Your task to perform on an android device: read, delete, or share a saved page in the chrome app Image 0: 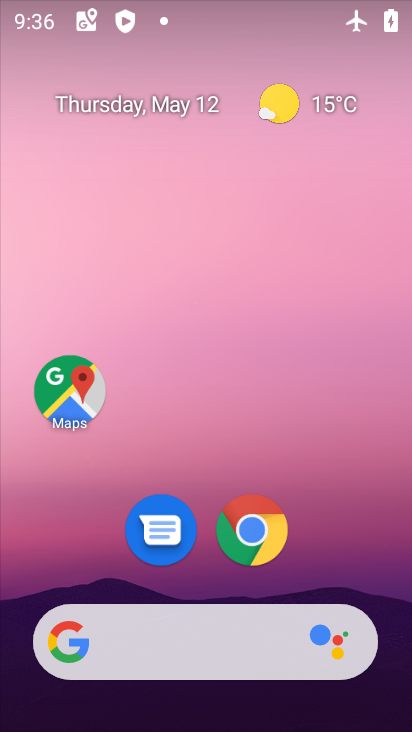
Step 0: click (265, 528)
Your task to perform on an android device: read, delete, or share a saved page in the chrome app Image 1: 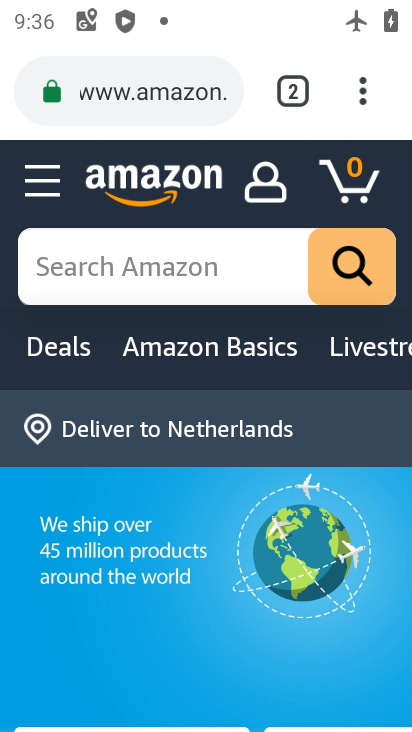
Step 1: click (362, 100)
Your task to perform on an android device: read, delete, or share a saved page in the chrome app Image 2: 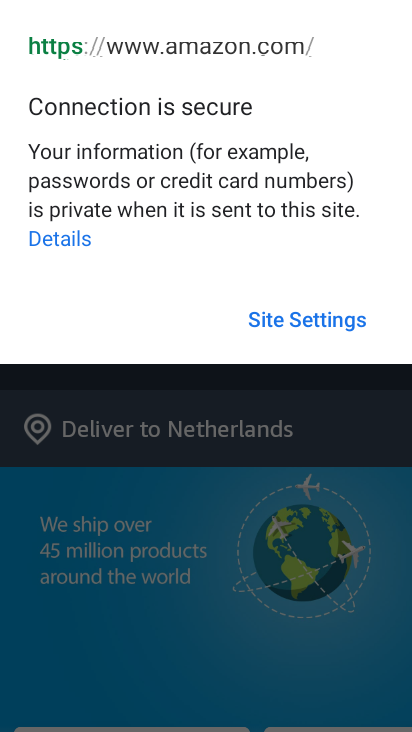
Step 2: click (179, 502)
Your task to perform on an android device: read, delete, or share a saved page in the chrome app Image 3: 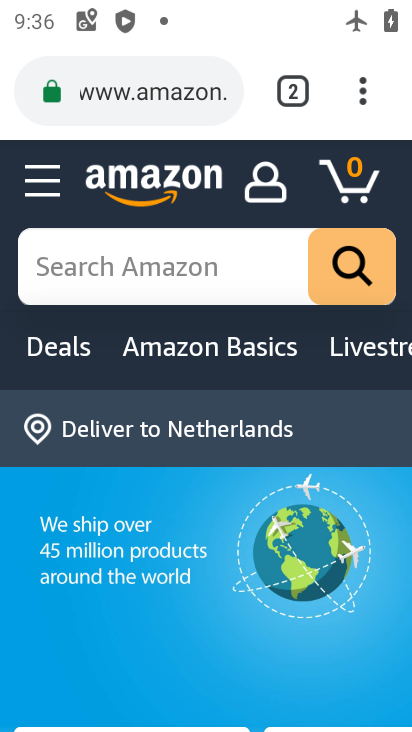
Step 3: click (369, 87)
Your task to perform on an android device: read, delete, or share a saved page in the chrome app Image 4: 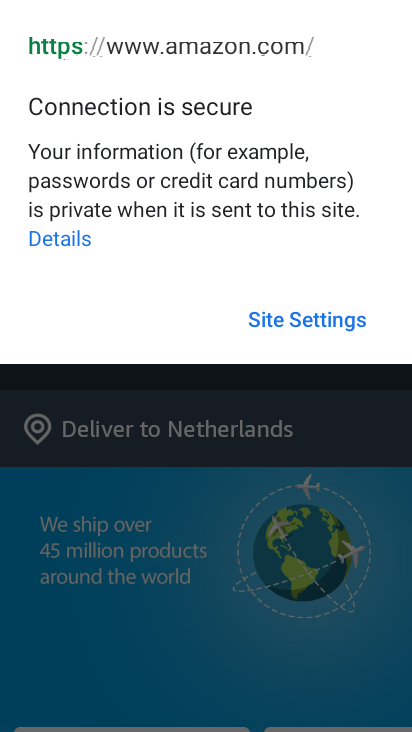
Step 4: click (152, 506)
Your task to perform on an android device: read, delete, or share a saved page in the chrome app Image 5: 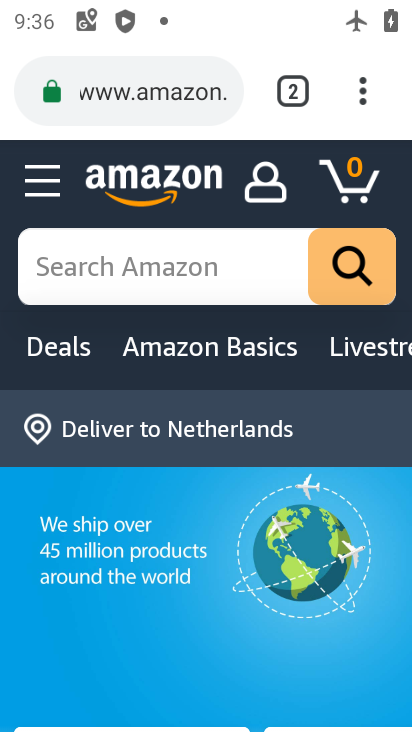
Step 5: click (357, 83)
Your task to perform on an android device: read, delete, or share a saved page in the chrome app Image 6: 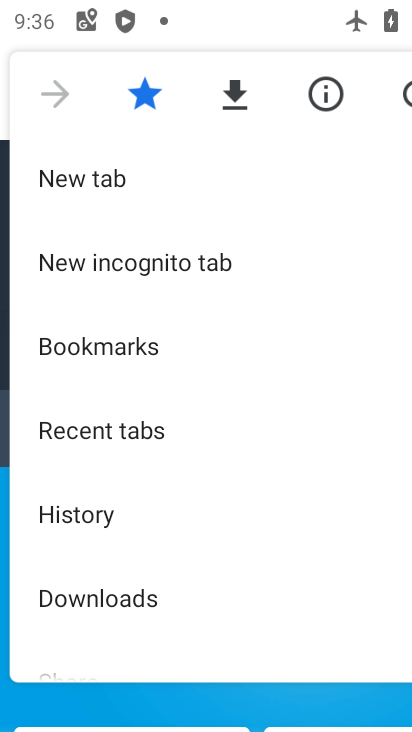
Step 6: drag from (249, 582) to (242, 280)
Your task to perform on an android device: read, delete, or share a saved page in the chrome app Image 7: 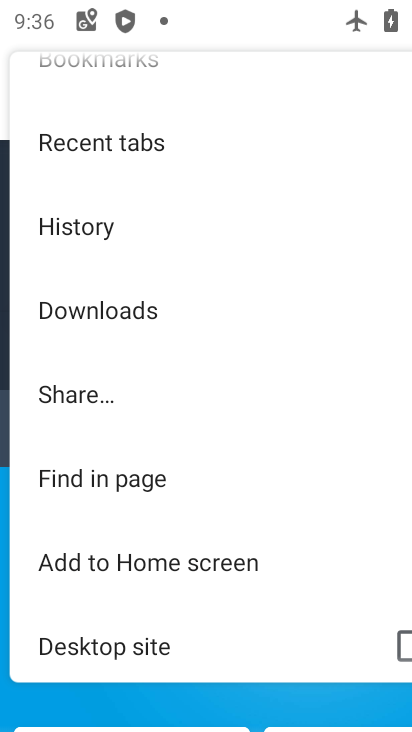
Step 7: drag from (205, 628) to (157, 192)
Your task to perform on an android device: read, delete, or share a saved page in the chrome app Image 8: 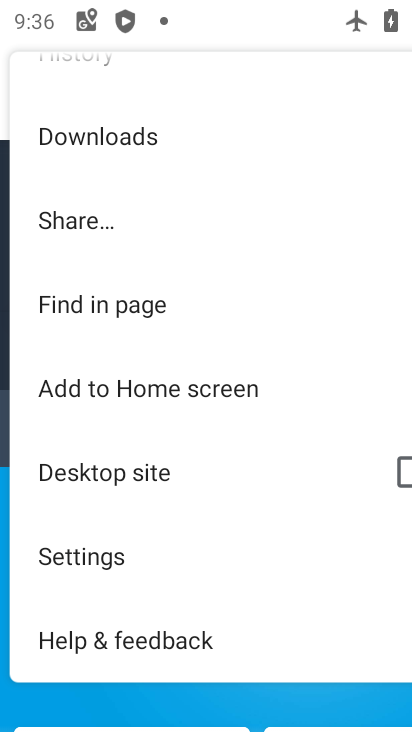
Step 8: drag from (188, 583) to (118, 130)
Your task to perform on an android device: read, delete, or share a saved page in the chrome app Image 9: 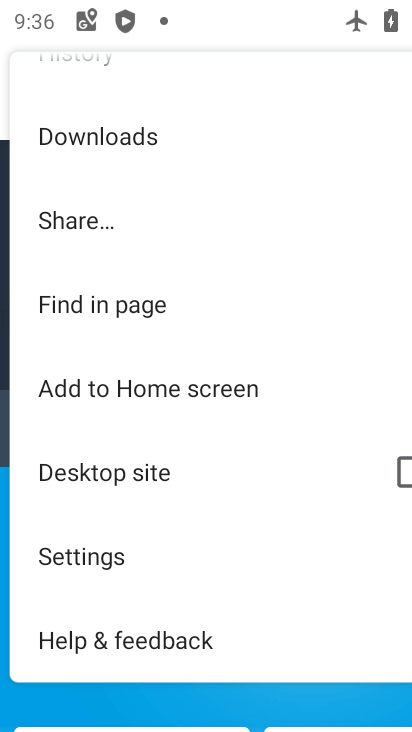
Step 9: click (154, 149)
Your task to perform on an android device: read, delete, or share a saved page in the chrome app Image 10: 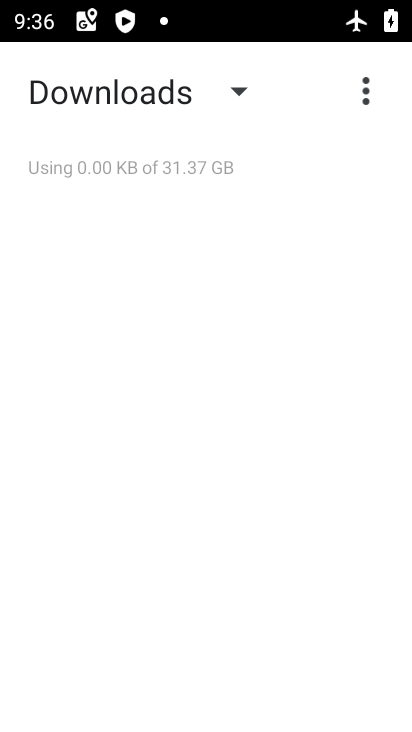
Step 10: task complete